Your task to perform on an android device: empty trash in the gmail app Image 0: 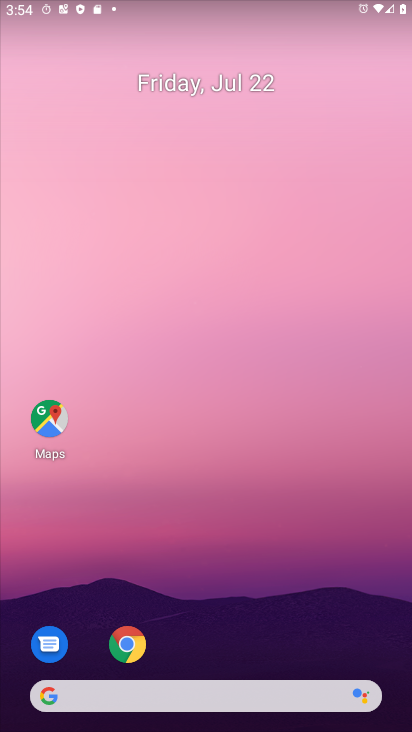
Step 0: drag from (222, 652) to (192, 217)
Your task to perform on an android device: empty trash in the gmail app Image 1: 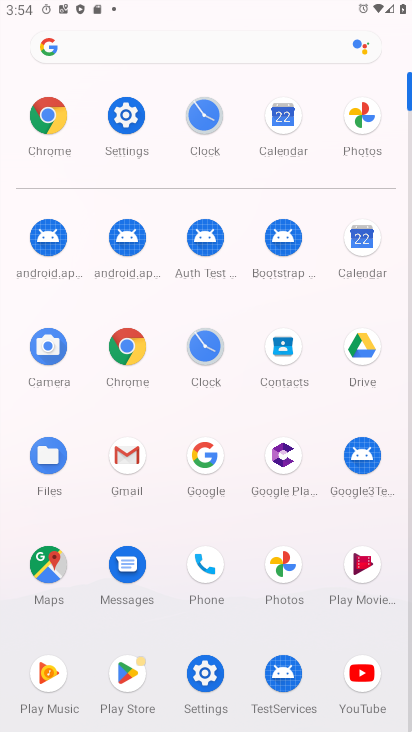
Step 1: click (116, 454)
Your task to perform on an android device: empty trash in the gmail app Image 2: 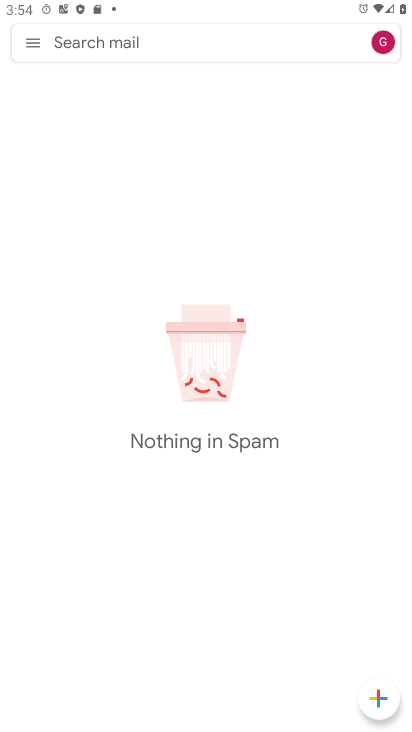
Step 2: click (35, 41)
Your task to perform on an android device: empty trash in the gmail app Image 3: 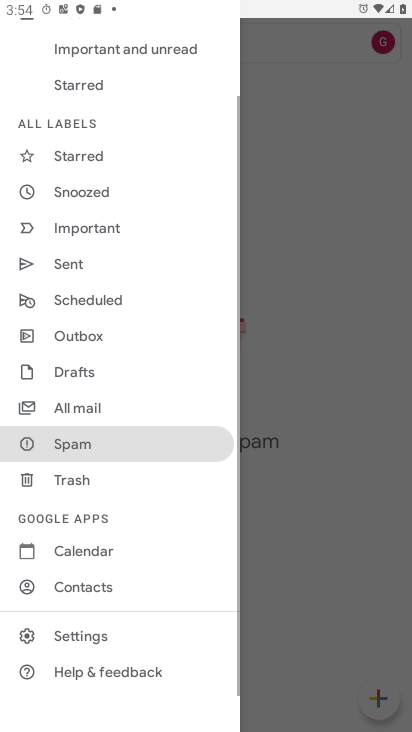
Step 3: click (62, 483)
Your task to perform on an android device: empty trash in the gmail app Image 4: 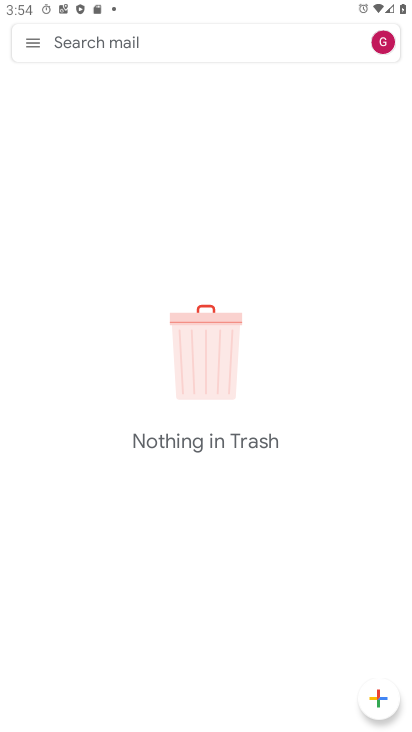
Step 4: task complete